Your task to perform on an android device: Search for Mexican restaurants on Maps Image 0: 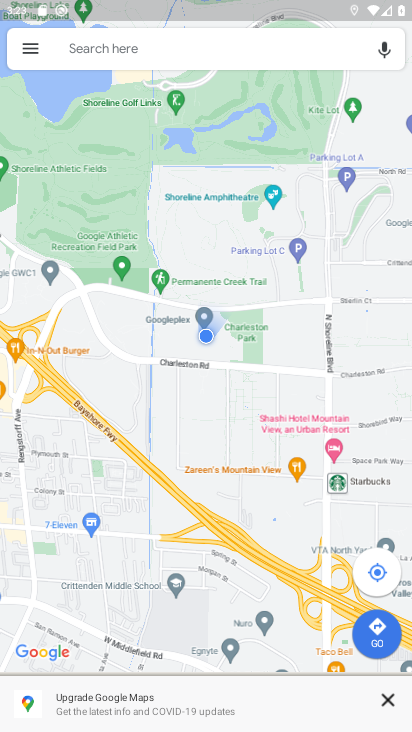
Step 0: click (82, 51)
Your task to perform on an android device: Search for Mexican restaurants on Maps Image 1: 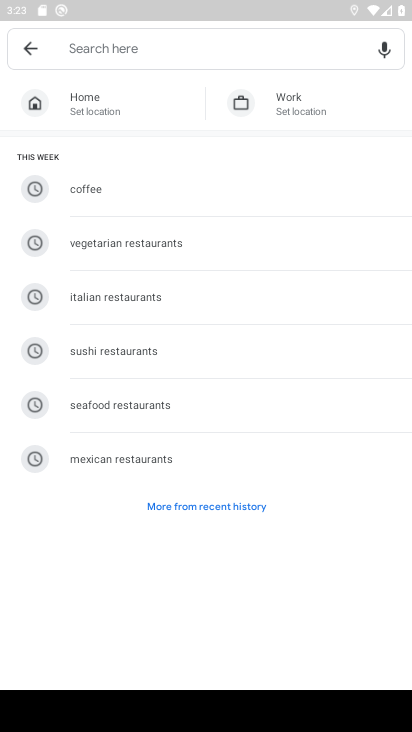
Step 1: click (82, 51)
Your task to perform on an android device: Search for Mexican restaurants on Maps Image 2: 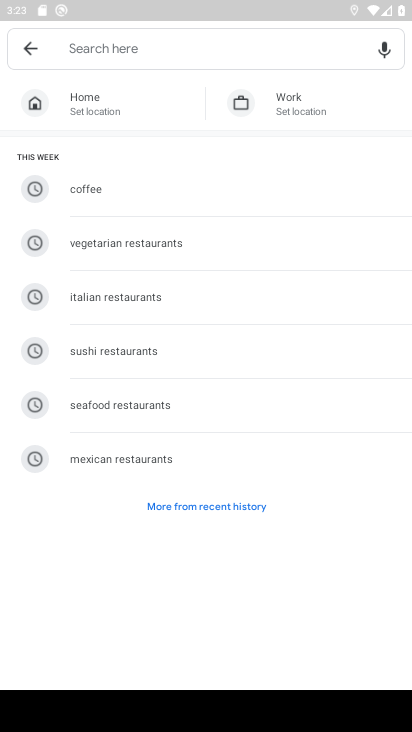
Step 2: click (203, 453)
Your task to perform on an android device: Search for Mexican restaurants on Maps Image 3: 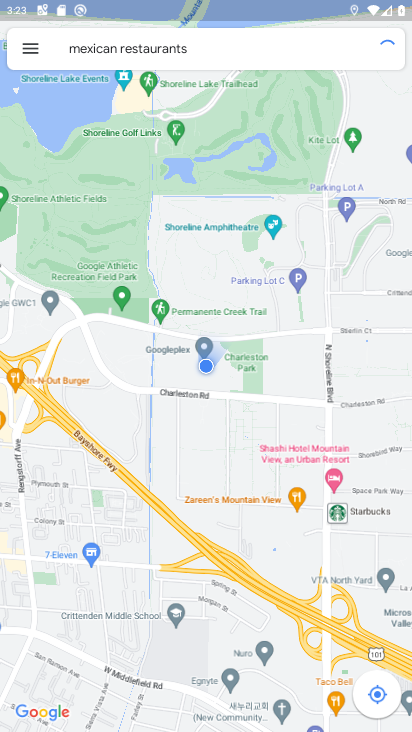
Step 3: task complete